Your task to perform on an android device: toggle notification dots Image 0: 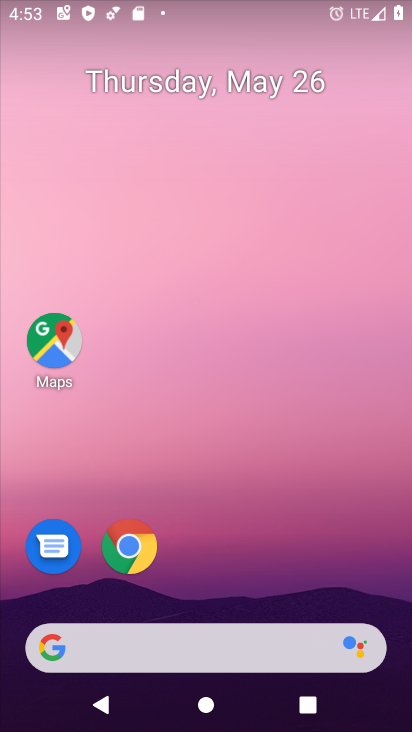
Step 0: drag from (272, 545) to (347, 20)
Your task to perform on an android device: toggle notification dots Image 1: 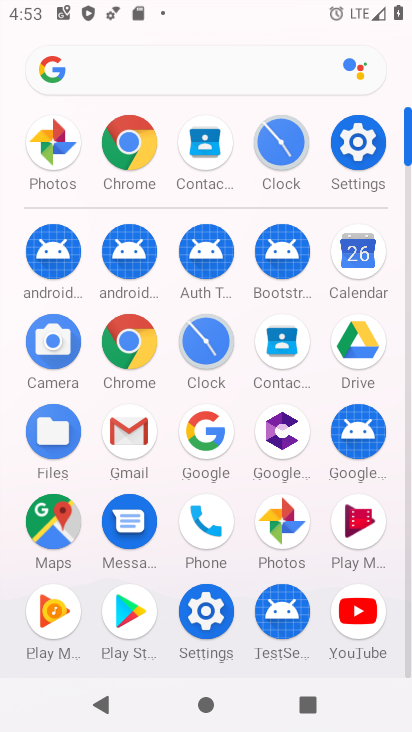
Step 1: click (363, 132)
Your task to perform on an android device: toggle notification dots Image 2: 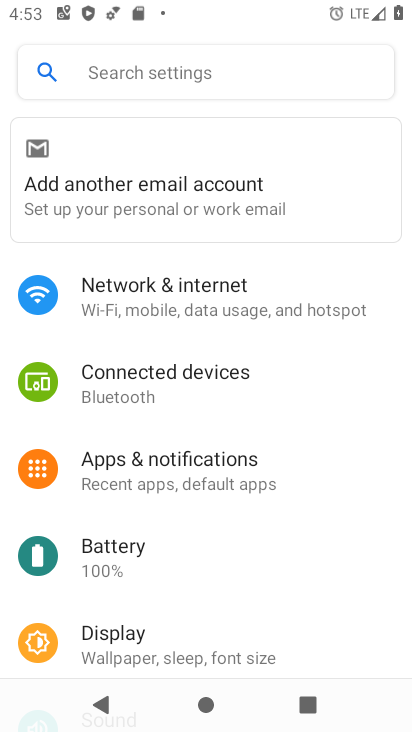
Step 2: click (190, 471)
Your task to perform on an android device: toggle notification dots Image 3: 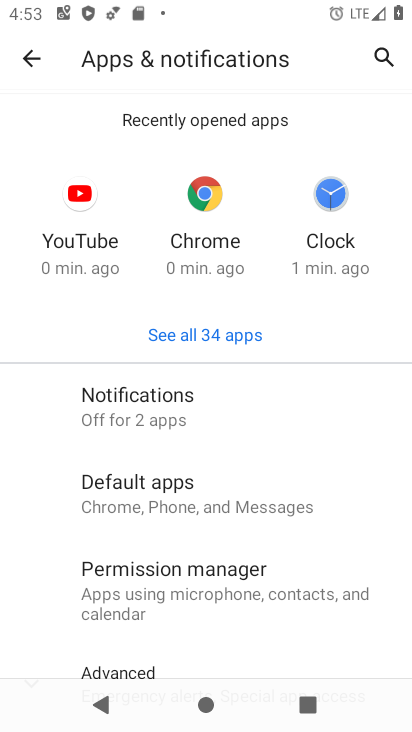
Step 3: click (162, 403)
Your task to perform on an android device: toggle notification dots Image 4: 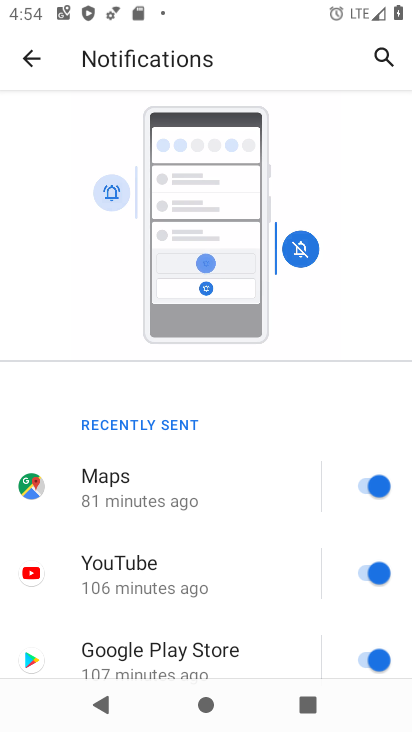
Step 4: drag from (159, 657) to (255, 122)
Your task to perform on an android device: toggle notification dots Image 5: 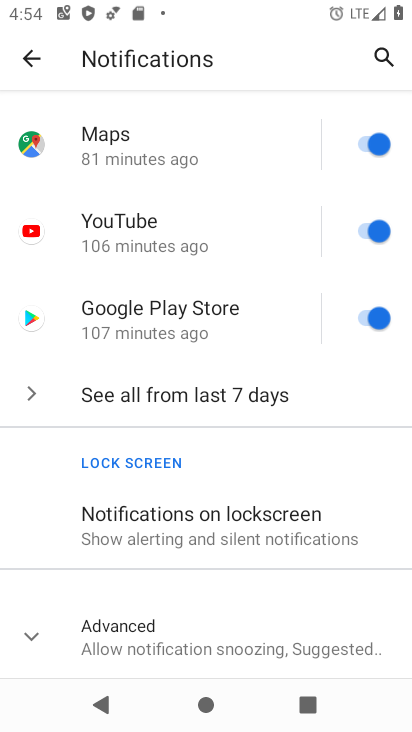
Step 5: click (180, 629)
Your task to perform on an android device: toggle notification dots Image 6: 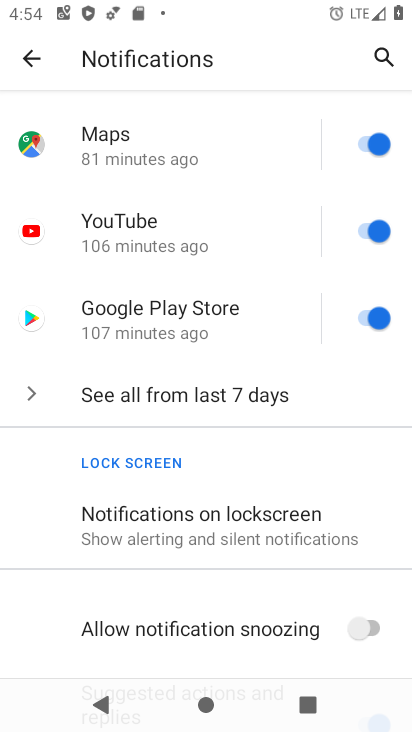
Step 6: drag from (218, 605) to (231, 226)
Your task to perform on an android device: toggle notification dots Image 7: 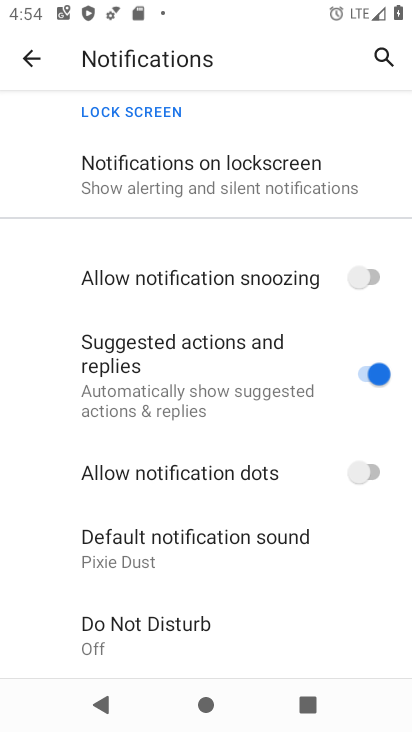
Step 7: click (366, 470)
Your task to perform on an android device: toggle notification dots Image 8: 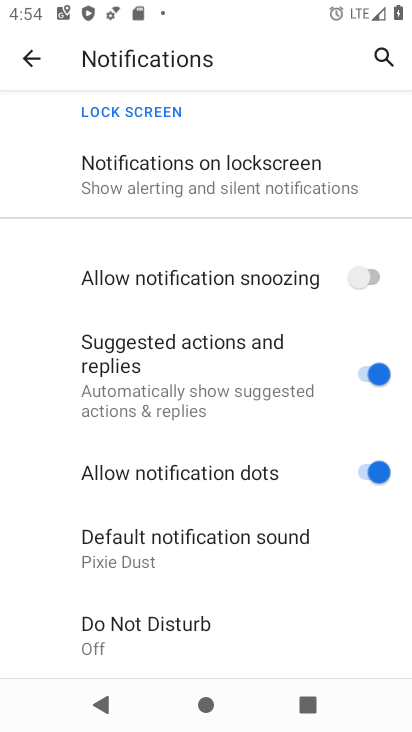
Step 8: task complete